Your task to perform on an android device: turn off data saver in the chrome app Image 0: 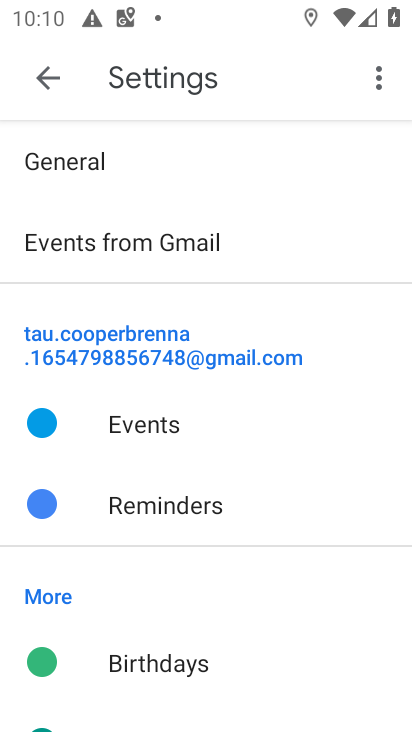
Step 0: press home button
Your task to perform on an android device: turn off data saver in the chrome app Image 1: 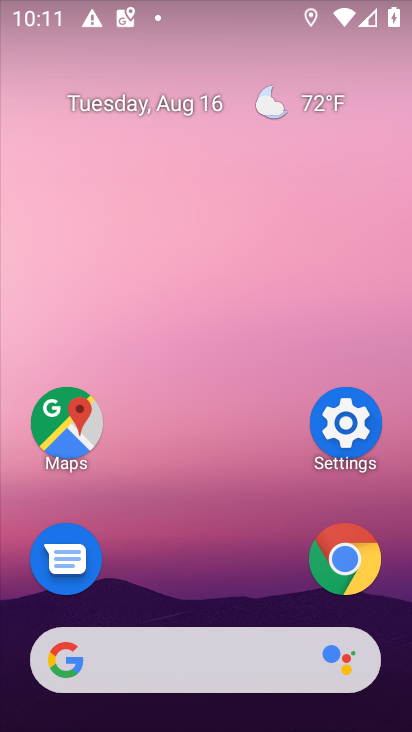
Step 1: click (342, 565)
Your task to perform on an android device: turn off data saver in the chrome app Image 2: 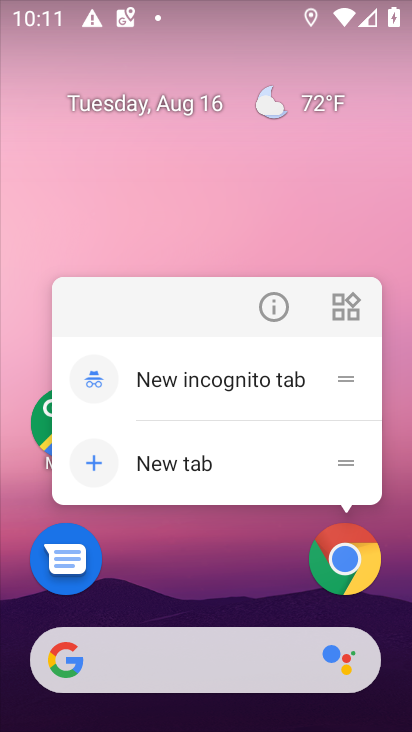
Step 2: click (342, 564)
Your task to perform on an android device: turn off data saver in the chrome app Image 3: 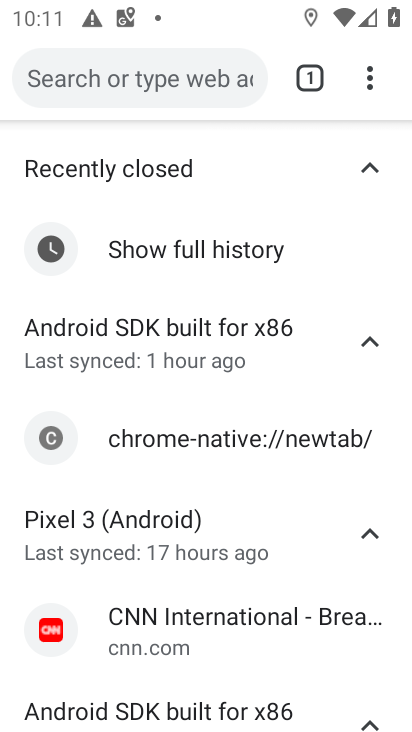
Step 3: drag from (370, 81) to (226, 643)
Your task to perform on an android device: turn off data saver in the chrome app Image 4: 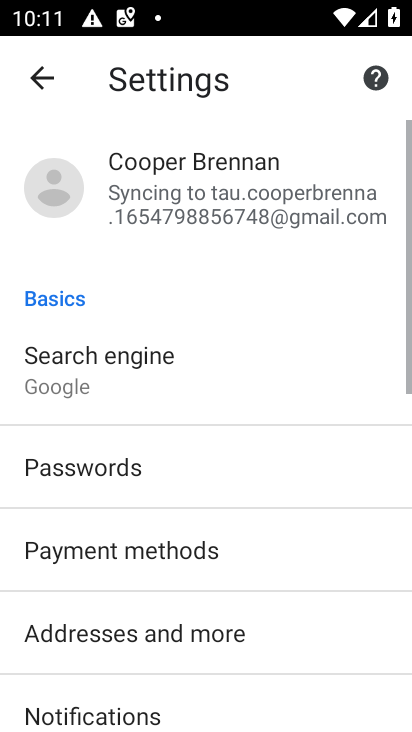
Step 4: drag from (172, 684) to (258, 224)
Your task to perform on an android device: turn off data saver in the chrome app Image 5: 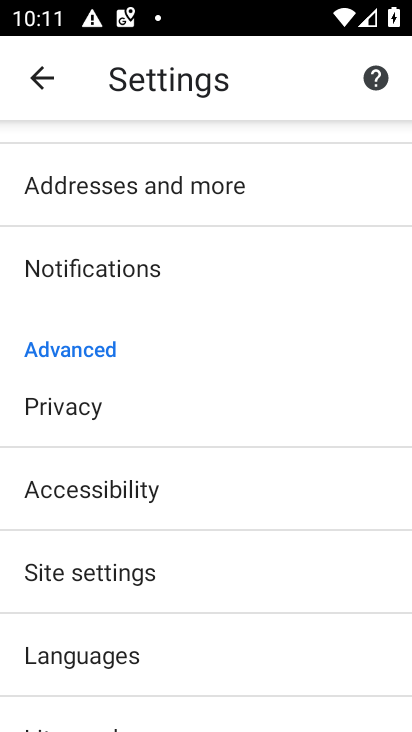
Step 5: drag from (265, 498) to (388, 129)
Your task to perform on an android device: turn off data saver in the chrome app Image 6: 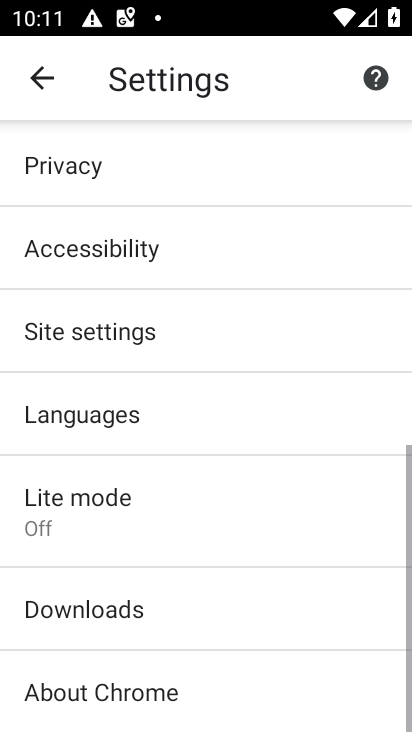
Step 6: click (156, 512)
Your task to perform on an android device: turn off data saver in the chrome app Image 7: 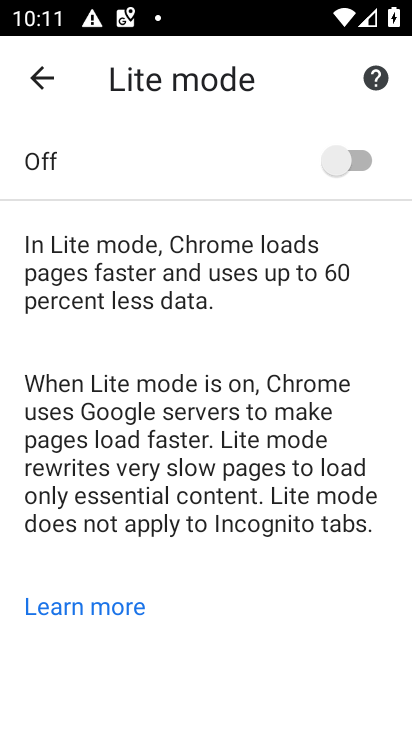
Step 7: task complete